Your task to perform on an android device: Search for Mexican restaurants on Maps Image 0: 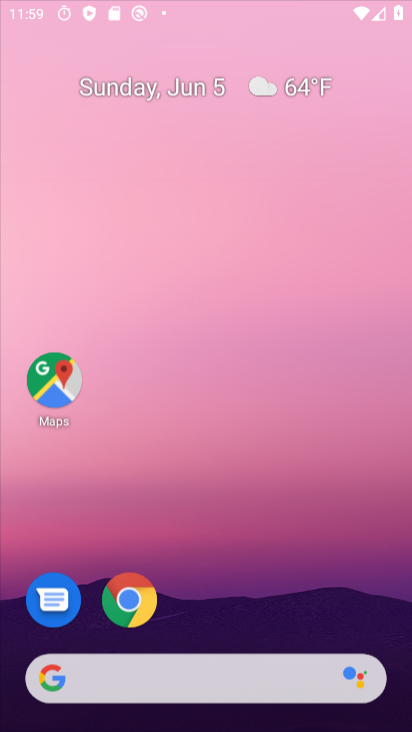
Step 0: drag from (250, 612) to (252, 157)
Your task to perform on an android device: Search for Mexican restaurants on Maps Image 1: 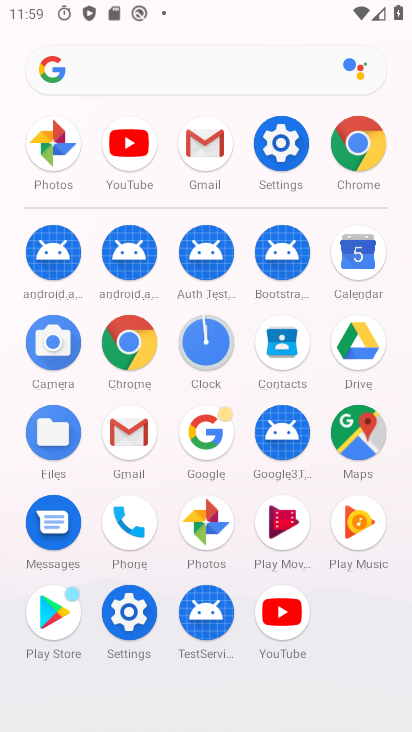
Step 1: click (343, 431)
Your task to perform on an android device: Search for Mexican restaurants on Maps Image 2: 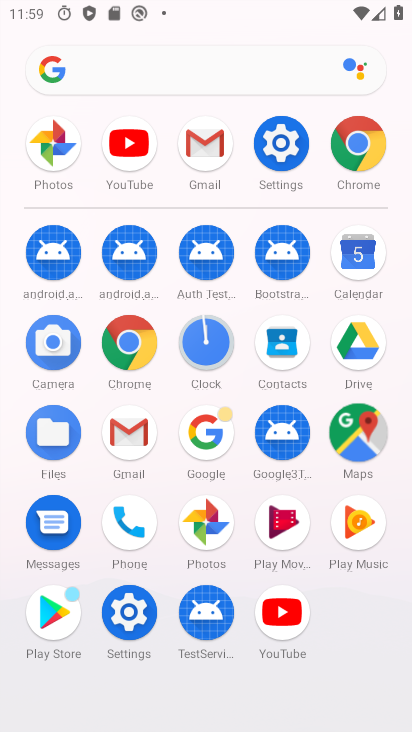
Step 2: click (343, 431)
Your task to perform on an android device: Search for Mexican restaurants on Maps Image 3: 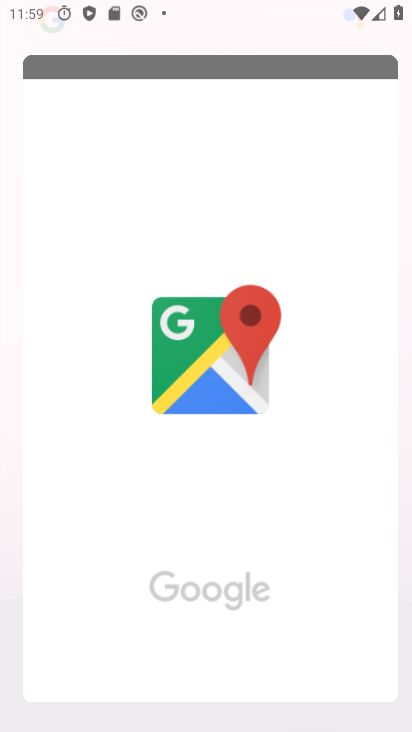
Step 3: click (343, 431)
Your task to perform on an android device: Search for Mexican restaurants on Maps Image 4: 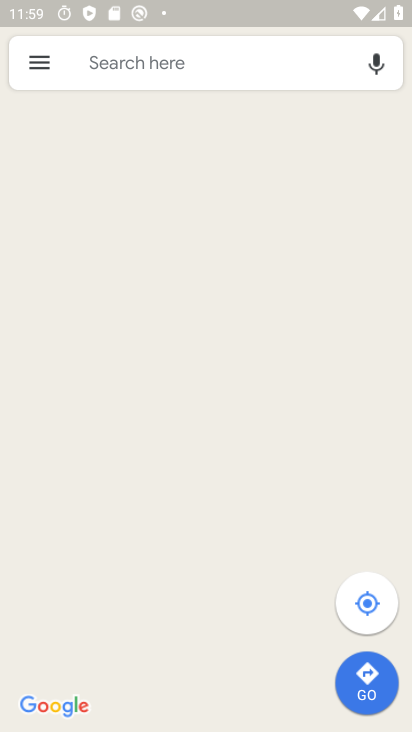
Step 4: click (90, 50)
Your task to perform on an android device: Search for Mexican restaurants on Maps Image 5: 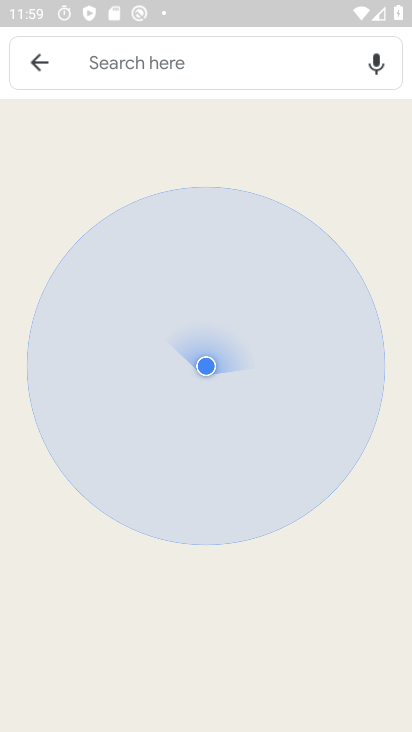
Step 5: click (104, 66)
Your task to perform on an android device: Search for Mexican restaurants on Maps Image 6: 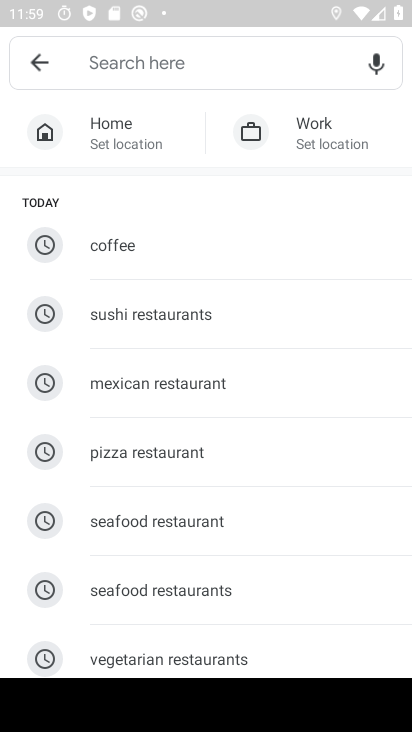
Step 6: type "mexican resturants"
Your task to perform on an android device: Search for Mexican restaurants on Maps Image 7: 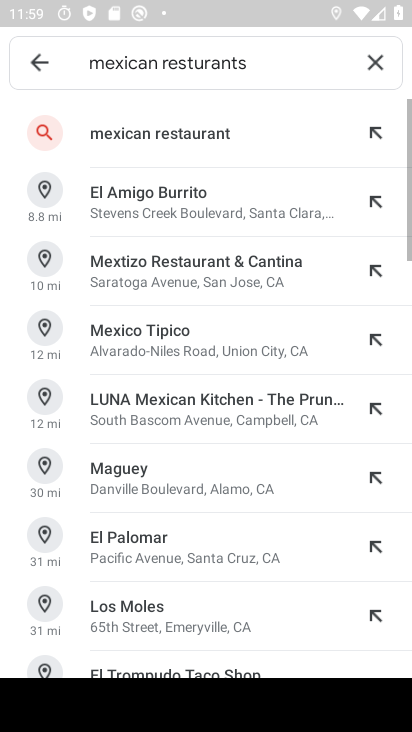
Step 7: click (169, 135)
Your task to perform on an android device: Search for Mexican restaurants on Maps Image 8: 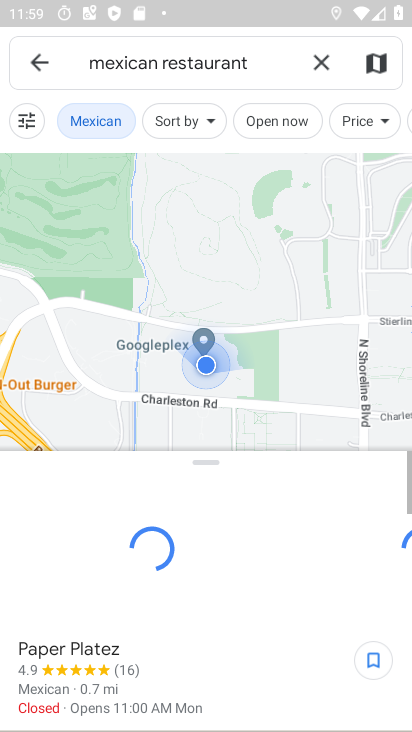
Step 8: task complete